Your task to perform on an android device: Go to Google Image 0: 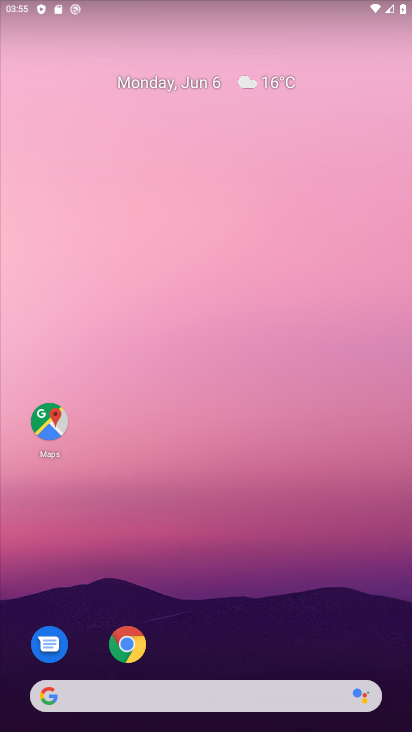
Step 0: drag from (405, 701) to (315, 6)
Your task to perform on an android device: Go to Google Image 1: 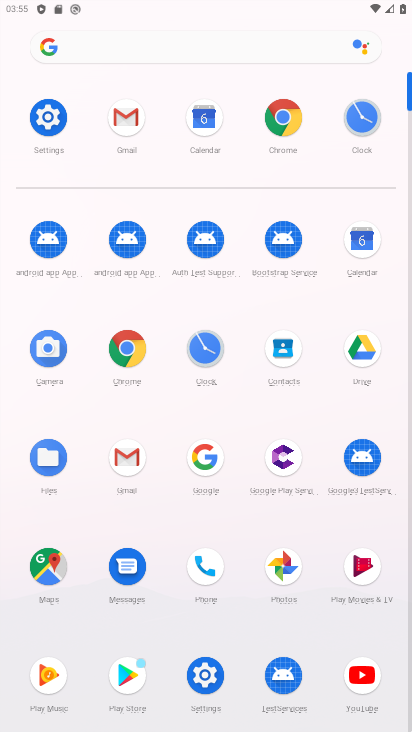
Step 1: click (211, 463)
Your task to perform on an android device: Go to Google Image 2: 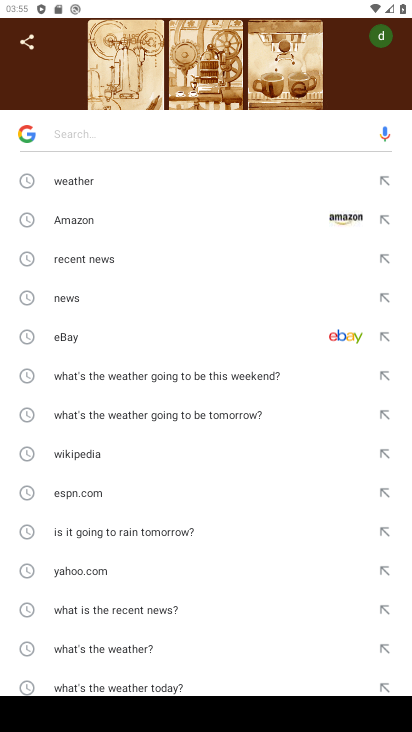
Step 2: task complete